Your task to perform on an android device: check out phone information Image 0: 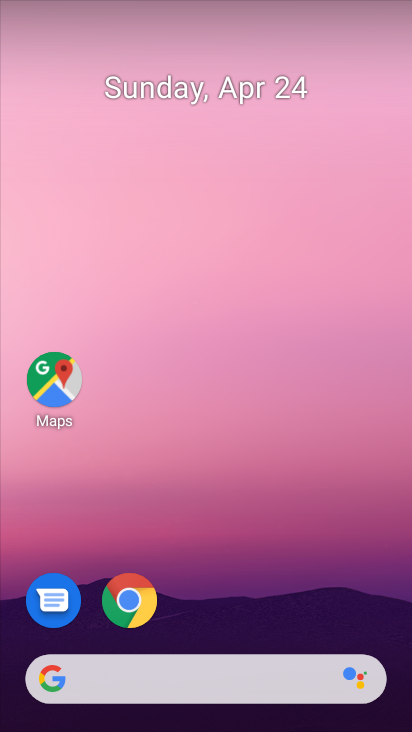
Step 0: drag from (207, 553) to (365, 0)
Your task to perform on an android device: check out phone information Image 1: 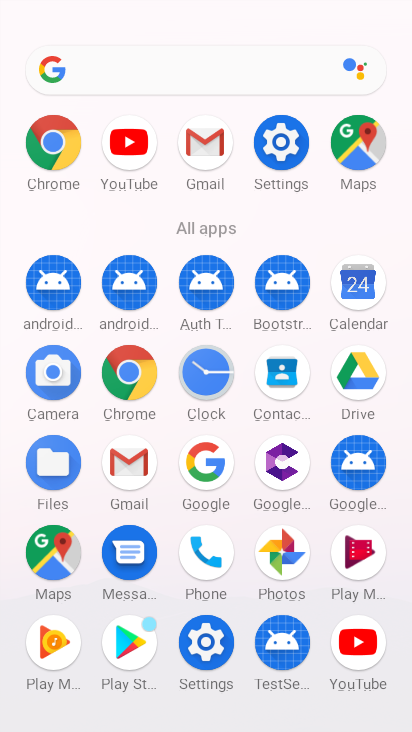
Step 1: click (286, 150)
Your task to perform on an android device: check out phone information Image 2: 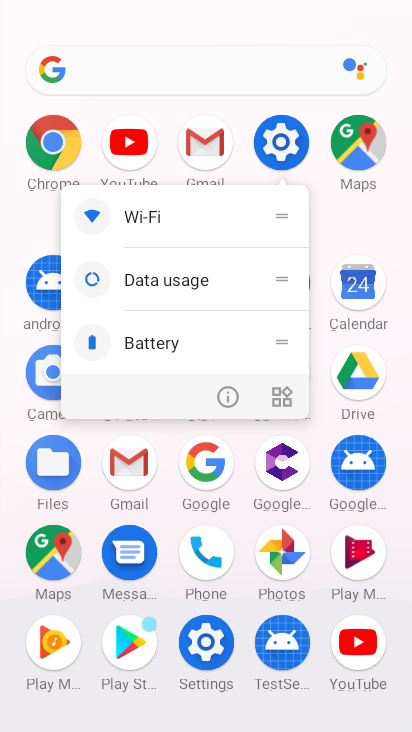
Step 2: click (207, 635)
Your task to perform on an android device: check out phone information Image 3: 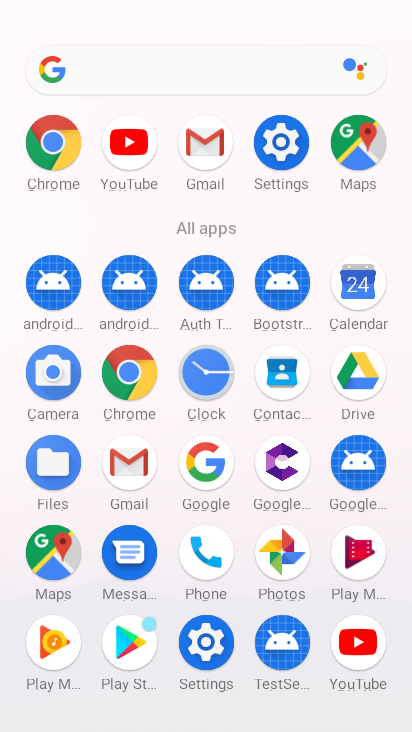
Step 3: click (214, 639)
Your task to perform on an android device: check out phone information Image 4: 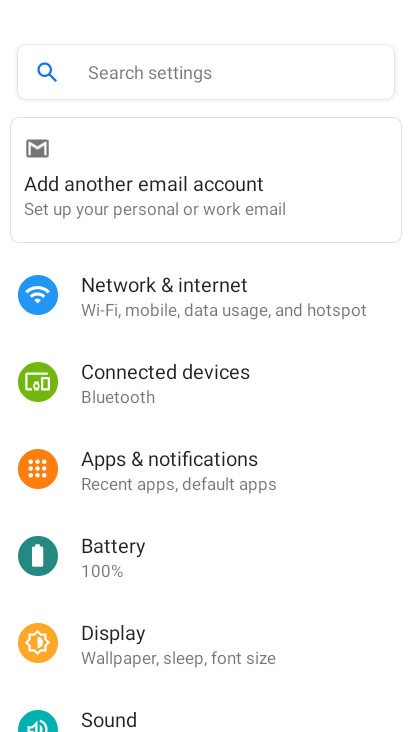
Step 4: drag from (208, 566) to (178, 9)
Your task to perform on an android device: check out phone information Image 5: 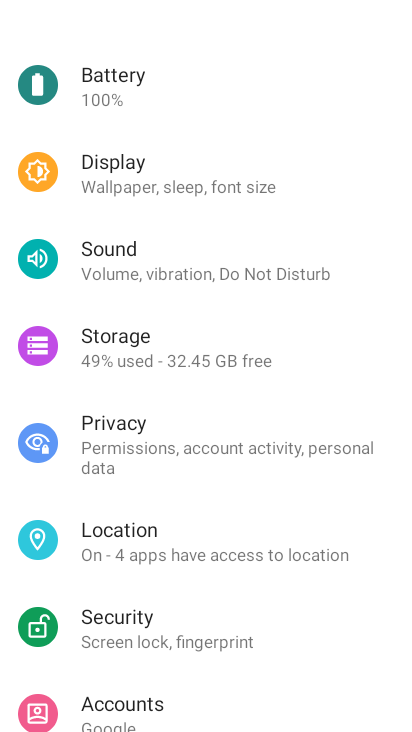
Step 5: drag from (223, 615) to (94, 51)
Your task to perform on an android device: check out phone information Image 6: 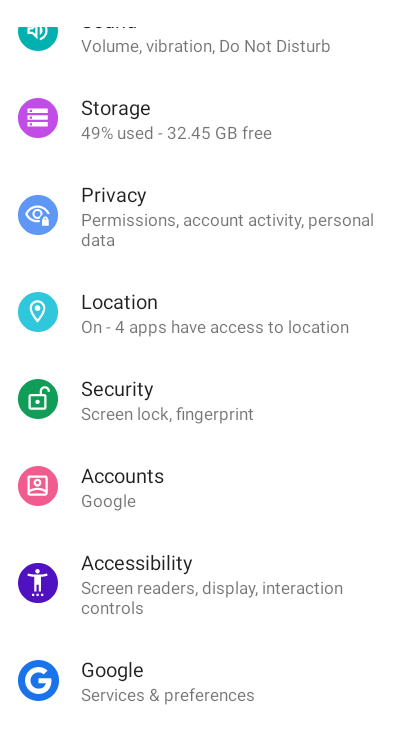
Step 6: drag from (194, 527) to (93, 139)
Your task to perform on an android device: check out phone information Image 7: 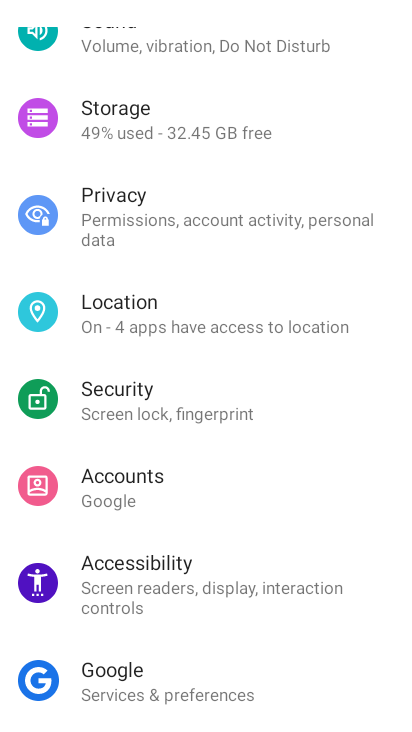
Step 7: drag from (190, 621) to (177, 198)
Your task to perform on an android device: check out phone information Image 8: 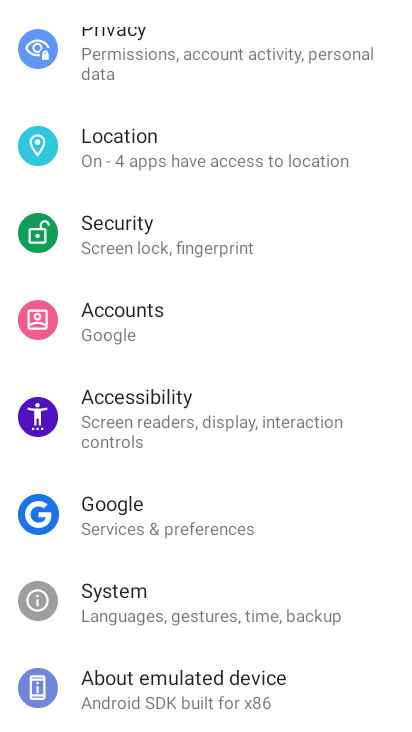
Step 8: click (191, 677)
Your task to perform on an android device: check out phone information Image 9: 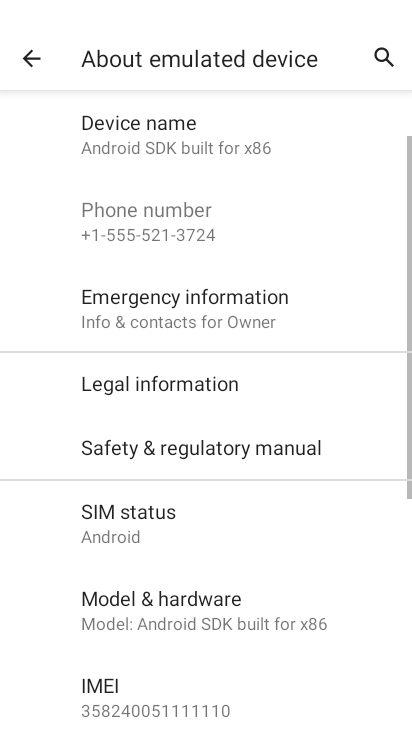
Step 9: task complete